Your task to perform on an android device: open sync settings in chrome Image 0: 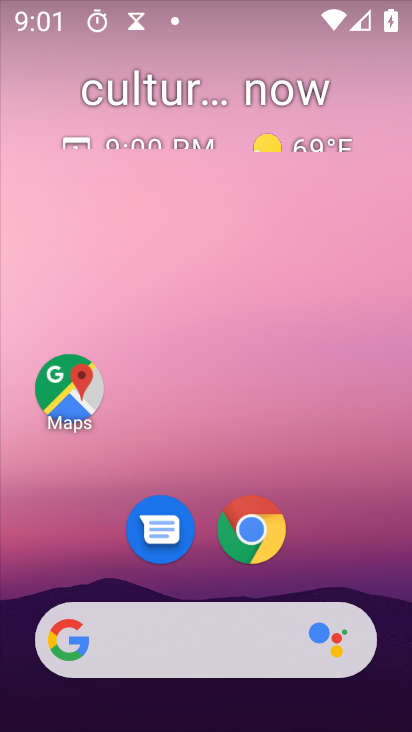
Step 0: click (244, 533)
Your task to perform on an android device: open sync settings in chrome Image 1: 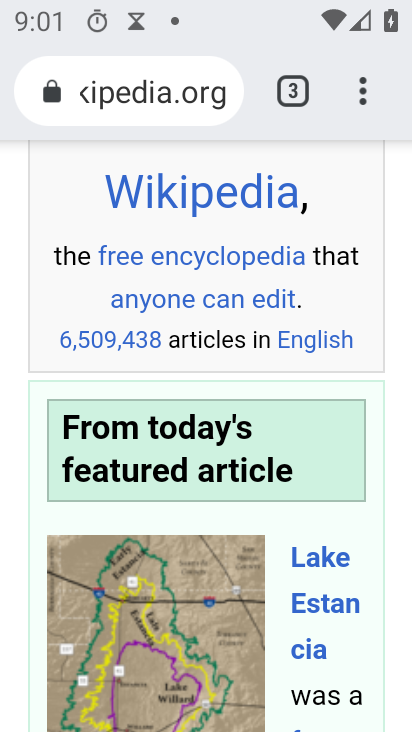
Step 1: click (364, 95)
Your task to perform on an android device: open sync settings in chrome Image 2: 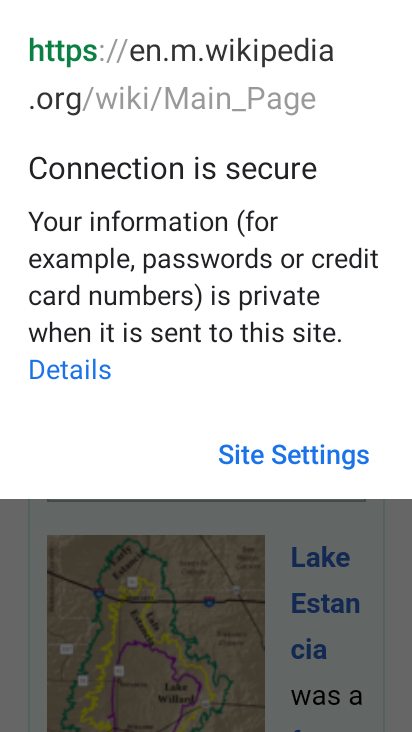
Step 2: press back button
Your task to perform on an android device: open sync settings in chrome Image 3: 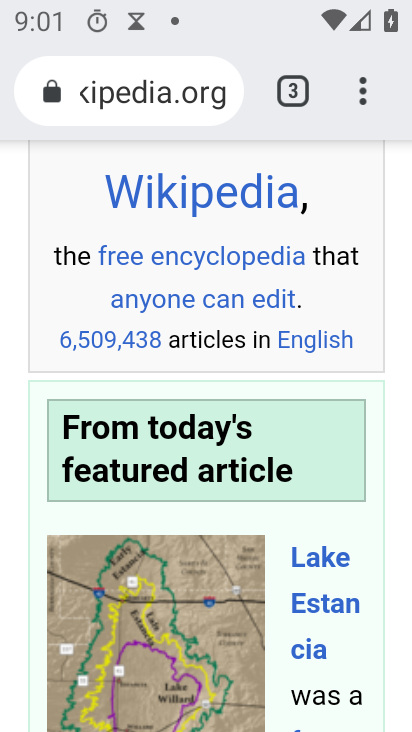
Step 3: click (358, 96)
Your task to perform on an android device: open sync settings in chrome Image 4: 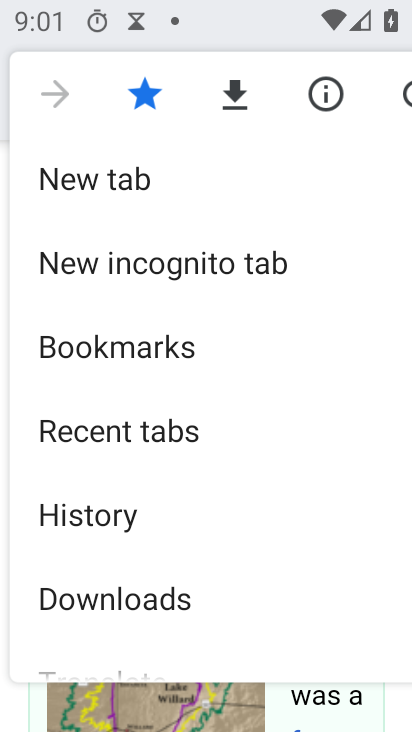
Step 4: drag from (209, 556) to (197, 131)
Your task to perform on an android device: open sync settings in chrome Image 5: 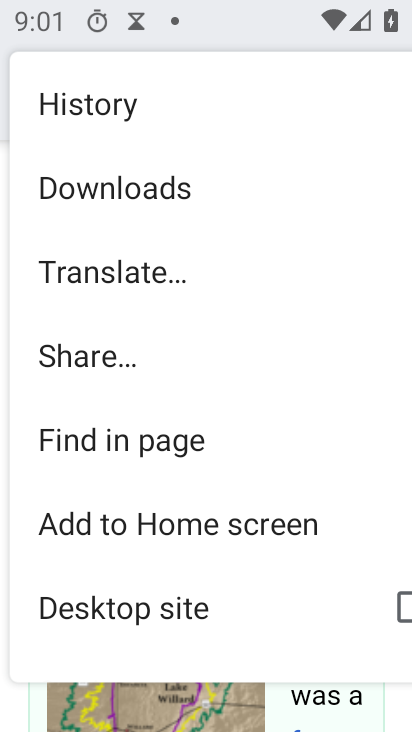
Step 5: drag from (193, 541) to (173, 154)
Your task to perform on an android device: open sync settings in chrome Image 6: 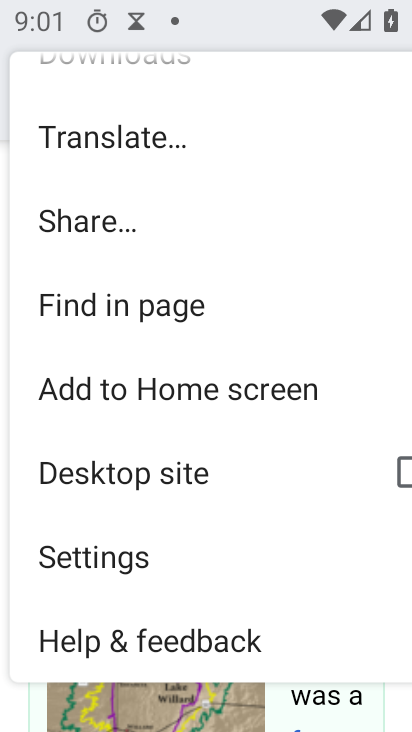
Step 6: click (129, 538)
Your task to perform on an android device: open sync settings in chrome Image 7: 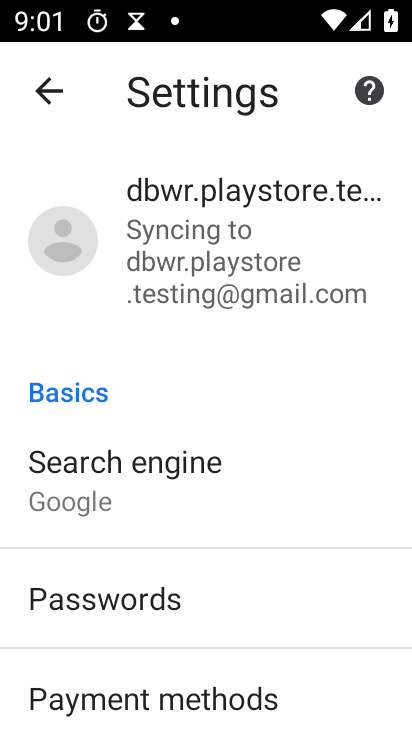
Step 7: drag from (172, 599) to (180, 92)
Your task to perform on an android device: open sync settings in chrome Image 8: 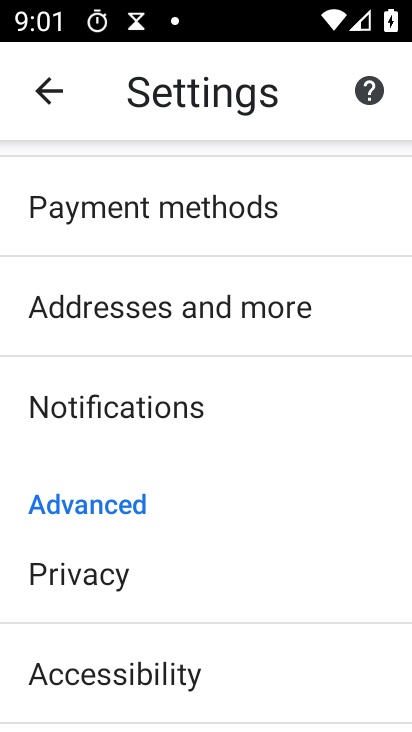
Step 8: drag from (266, 598) to (221, 180)
Your task to perform on an android device: open sync settings in chrome Image 9: 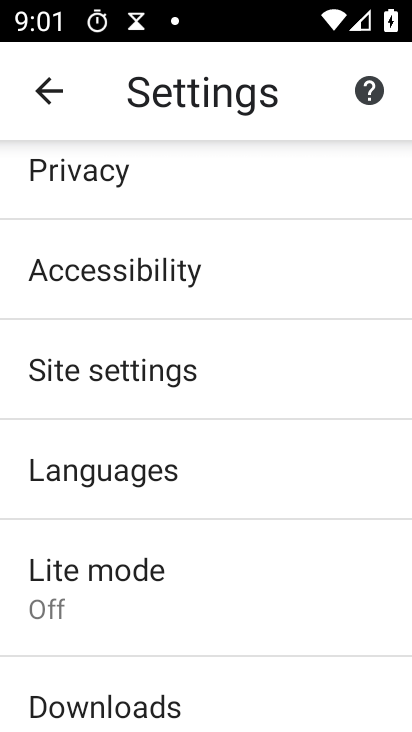
Step 9: drag from (254, 611) to (224, 197)
Your task to perform on an android device: open sync settings in chrome Image 10: 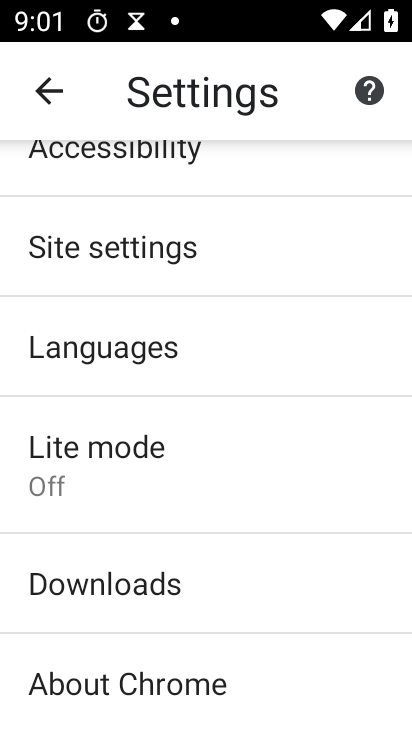
Step 10: drag from (224, 194) to (277, 682)
Your task to perform on an android device: open sync settings in chrome Image 11: 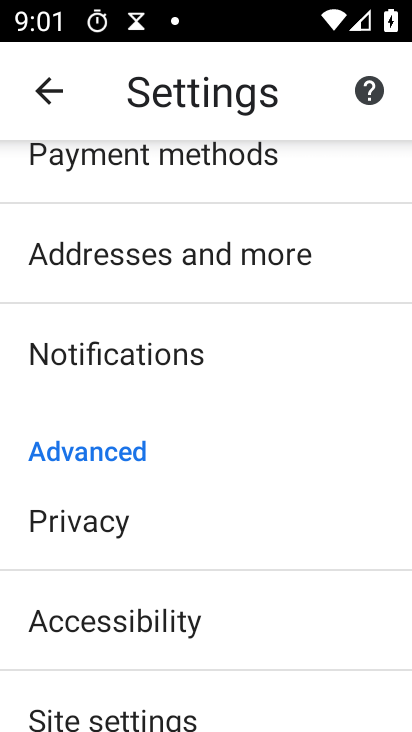
Step 11: click (200, 514)
Your task to perform on an android device: open sync settings in chrome Image 12: 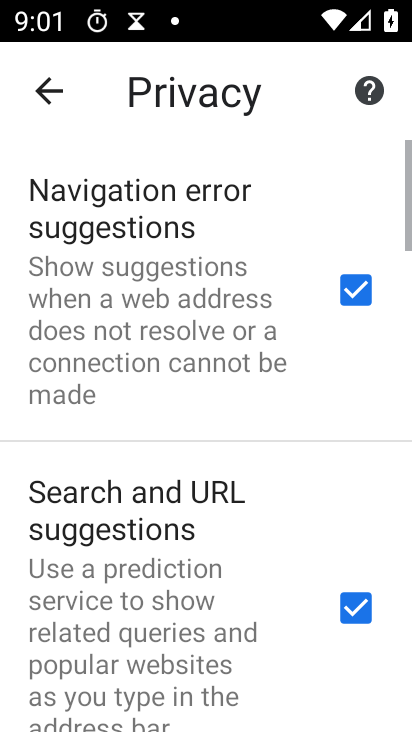
Step 12: drag from (222, 640) to (157, 118)
Your task to perform on an android device: open sync settings in chrome Image 13: 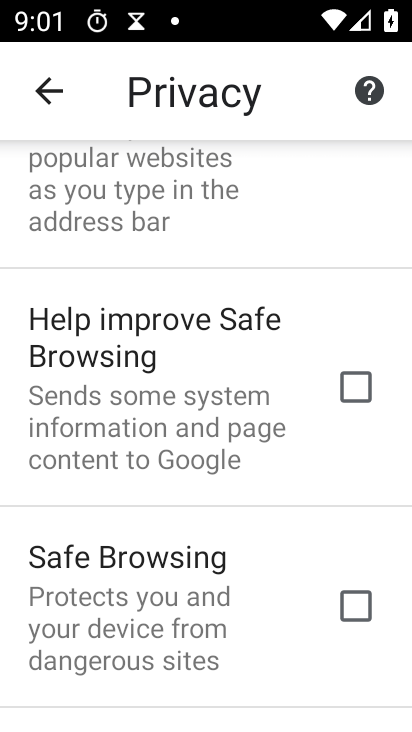
Step 13: drag from (190, 553) to (167, 137)
Your task to perform on an android device: open sync settings in chrome Image 14: 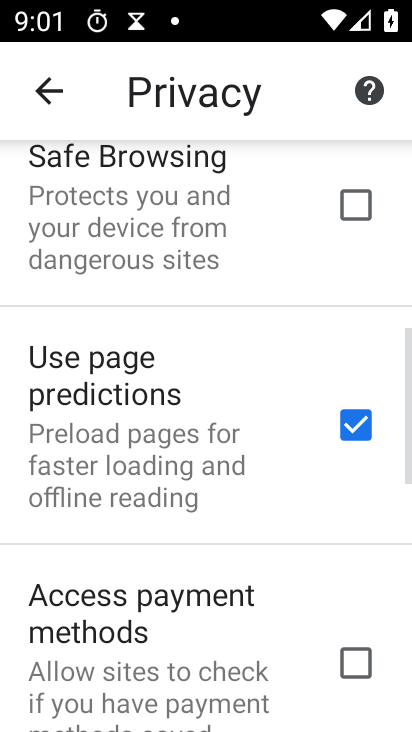
Step 14: drag from (148, 546) to (134, 141)
Your task to perform on an android device: open sync settings in chrome Image 15: 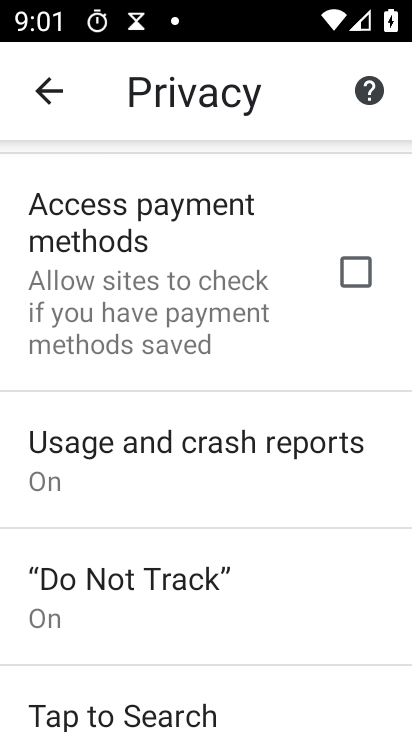
Step 15: drag from (153, 643) to (142, 255)
Your task to perform on an android device: open sync settings in chrome Image 16: 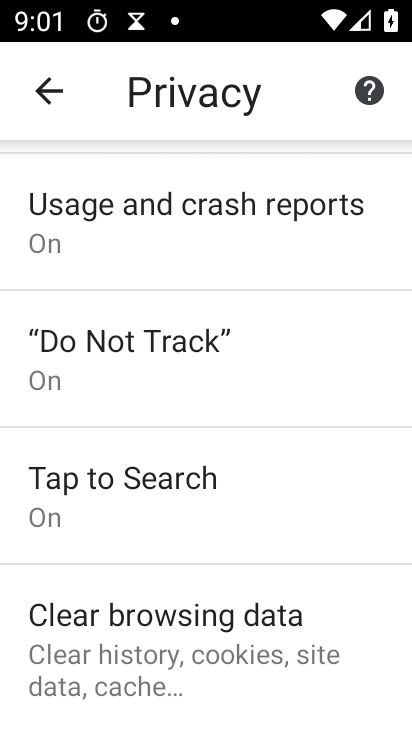
Step 16: press back button
Your task to perform on an android device: open sync settings in chrome Image 17: 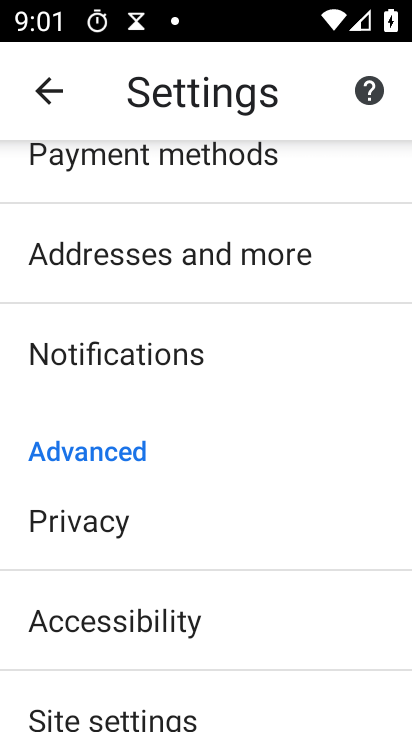
Step 17: click (270, 691)
Your task to perform on an android device: open sync settings in chrome Image 18: 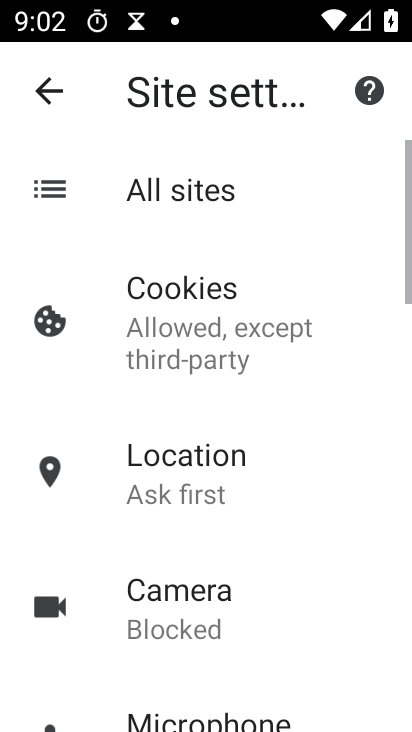
Step 18: drag from (253, 542) to (301, 83)
Your task to perform on an android device: open sync settings in chrome Image 19: 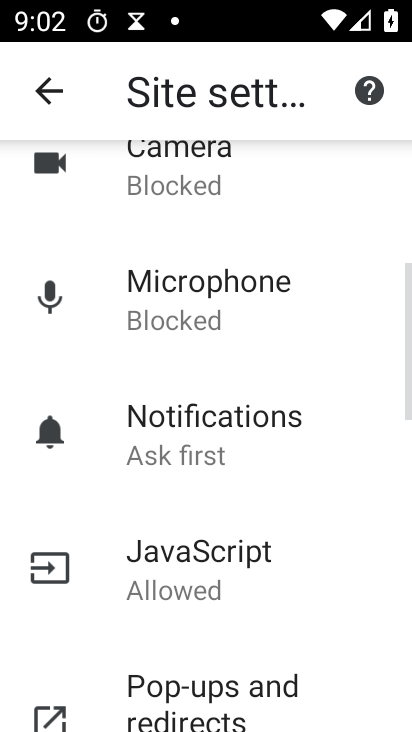
Step 19: drag from (311, 584) to (295, 109)
Your task to perform on an android device: open sync settings in chrome Image 20: 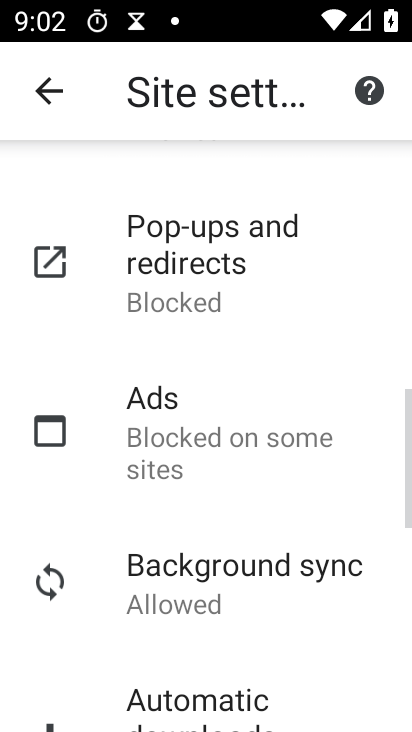
Step 20: drag from (266, 569) to (235, 149)
Your task to perform on an android device: open sync settings in chrome Image 21: 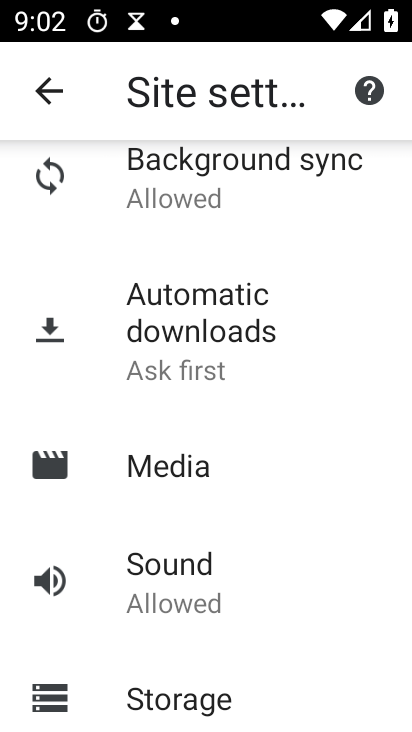
Step 21: click (238, 217)
Your task to perform on an android device: open sync settings in chrome Image 22: 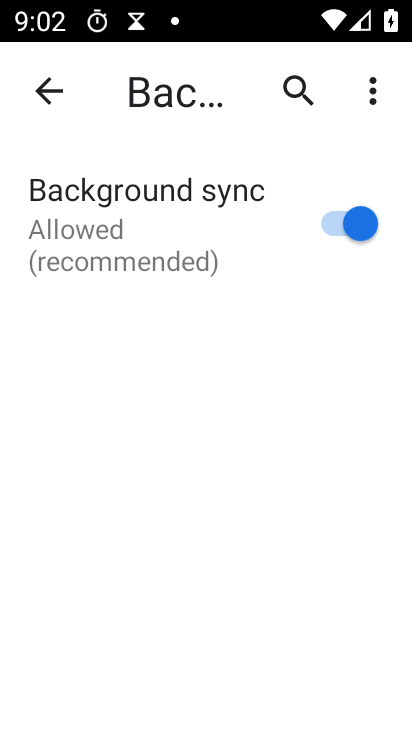
Step 22: task complete